Your task to perform on an android device: check android version Image 0: 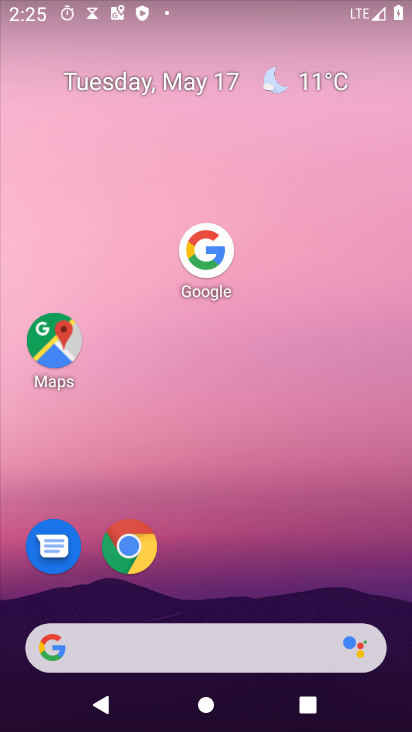
Step 0: press home button
Your task to perform on an android device: check android version Image 1: 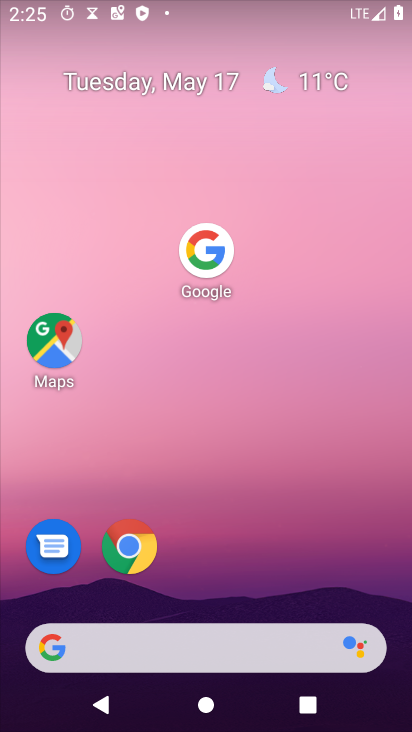
Step 1: drag from (166, 642) to (370, 164)
Your task to perform on an android device: check android version Image 2: 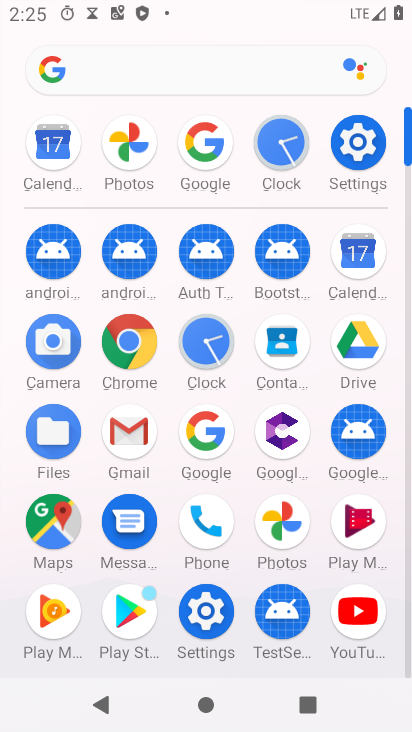
Step 2: click (367, 152)
Your task to perform on an android device: check android version Image 3: 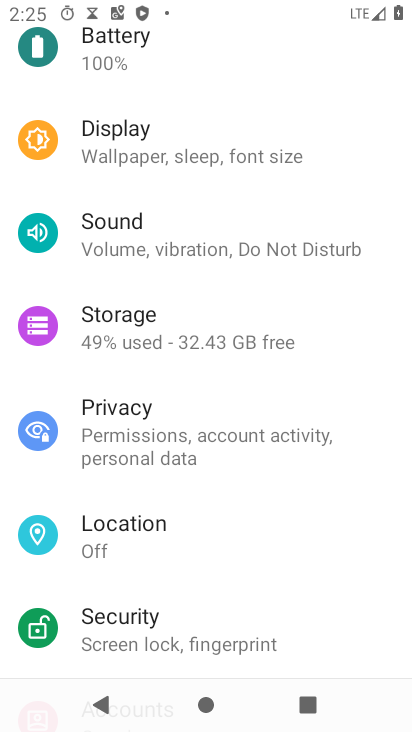
Step 3: drag from (230, 544) to (348, 136)
Your task to perform on an android device: check android version Image 4: 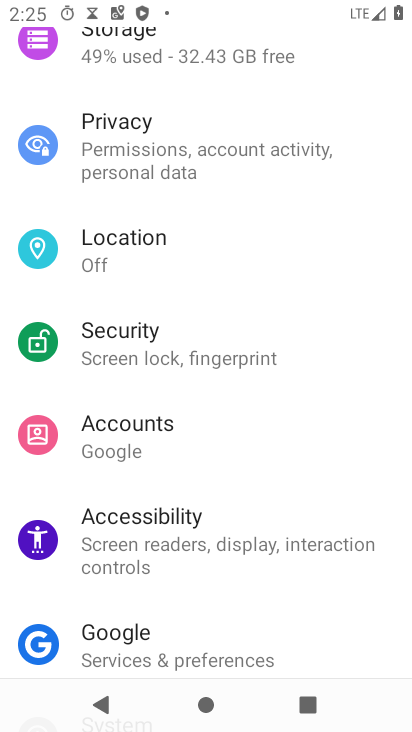
Step 4: drag from (199, 593) to (336, 156)
Your task to perform on an android device: check android version Image 5: 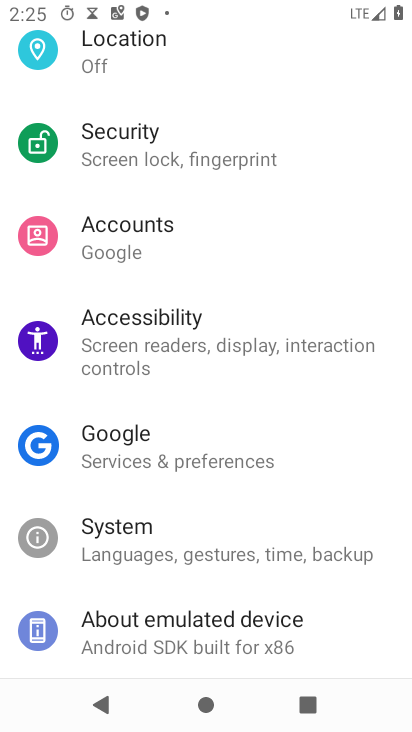
Step 5: click (177, 621)
Your task to perform on an android device: check android version Image 6: 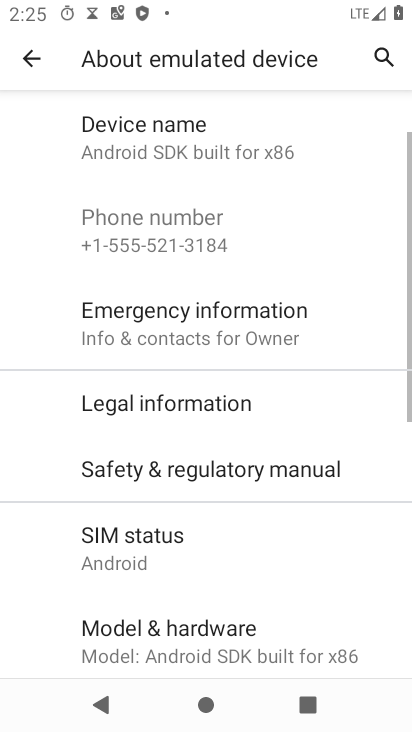
Step 6: drag from (317, 256) to (337, 176)
Your task to perform on an android device: check android version Image 7: 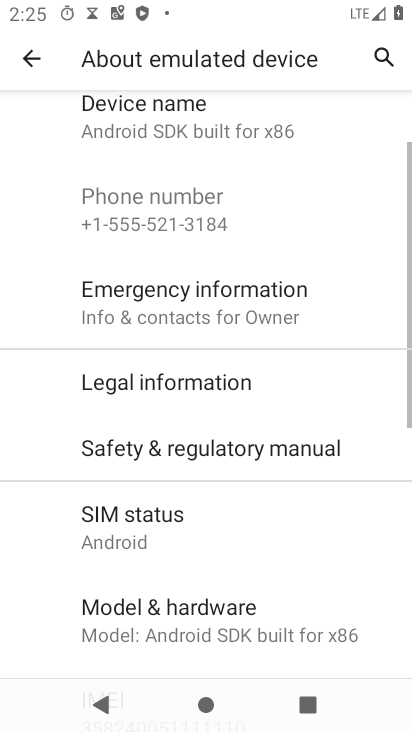
Step 7: drag from (258, 575) to (353, 152)
Your task to perform on an android device: check android version Image 8: 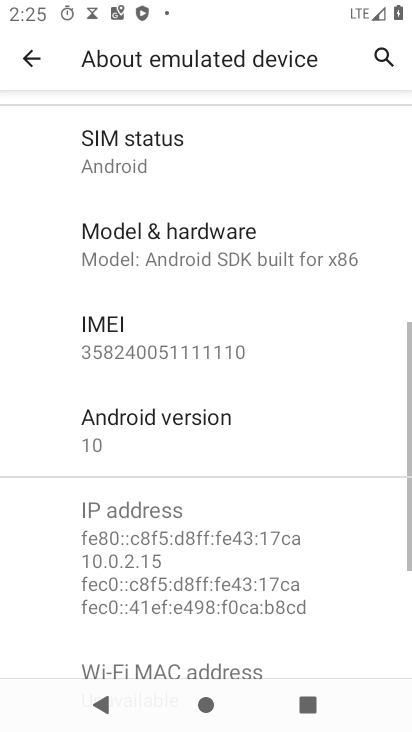
Step 8: click (176, 420)
Your task to perform on an android device: check android version Image 9: 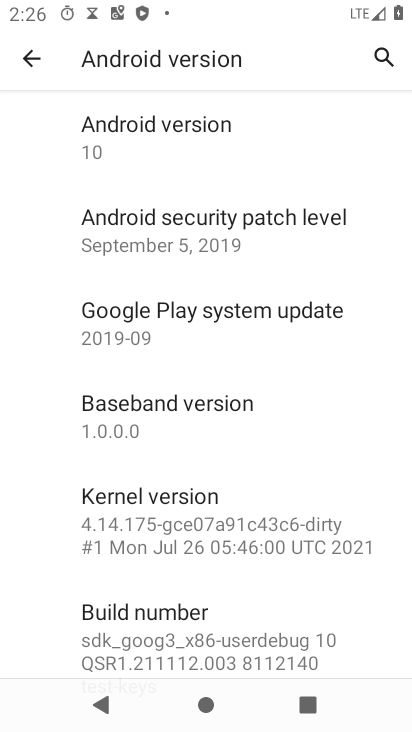
Step 9: task complete